Your task to perform on an android device: Check the weather Image 0: 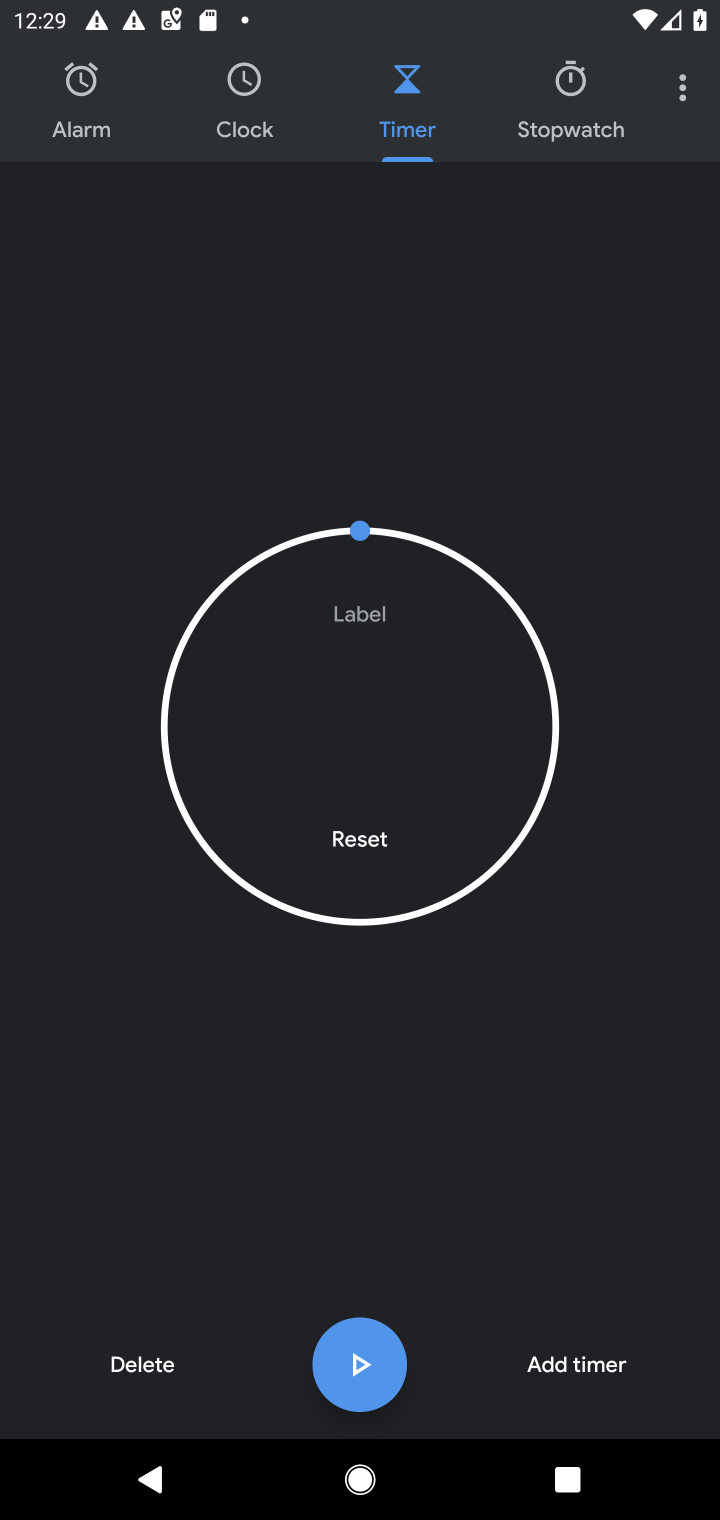
Step 0: press home button
Your task to perform on an android device: Check the weather Image 1: 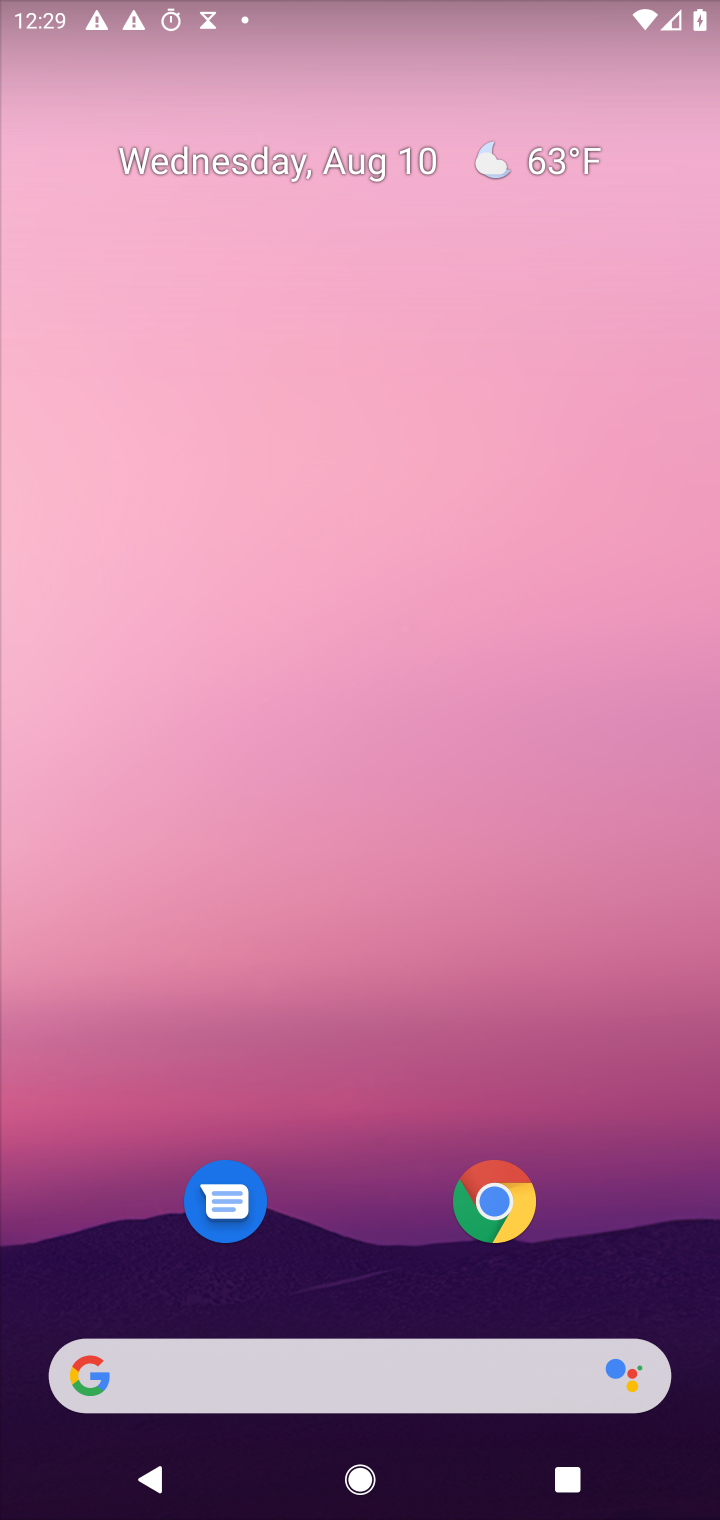
Step 1: drag from (356, 1055) to (423, 527)
Your task to perform on an android device: Check the weather Image 2: 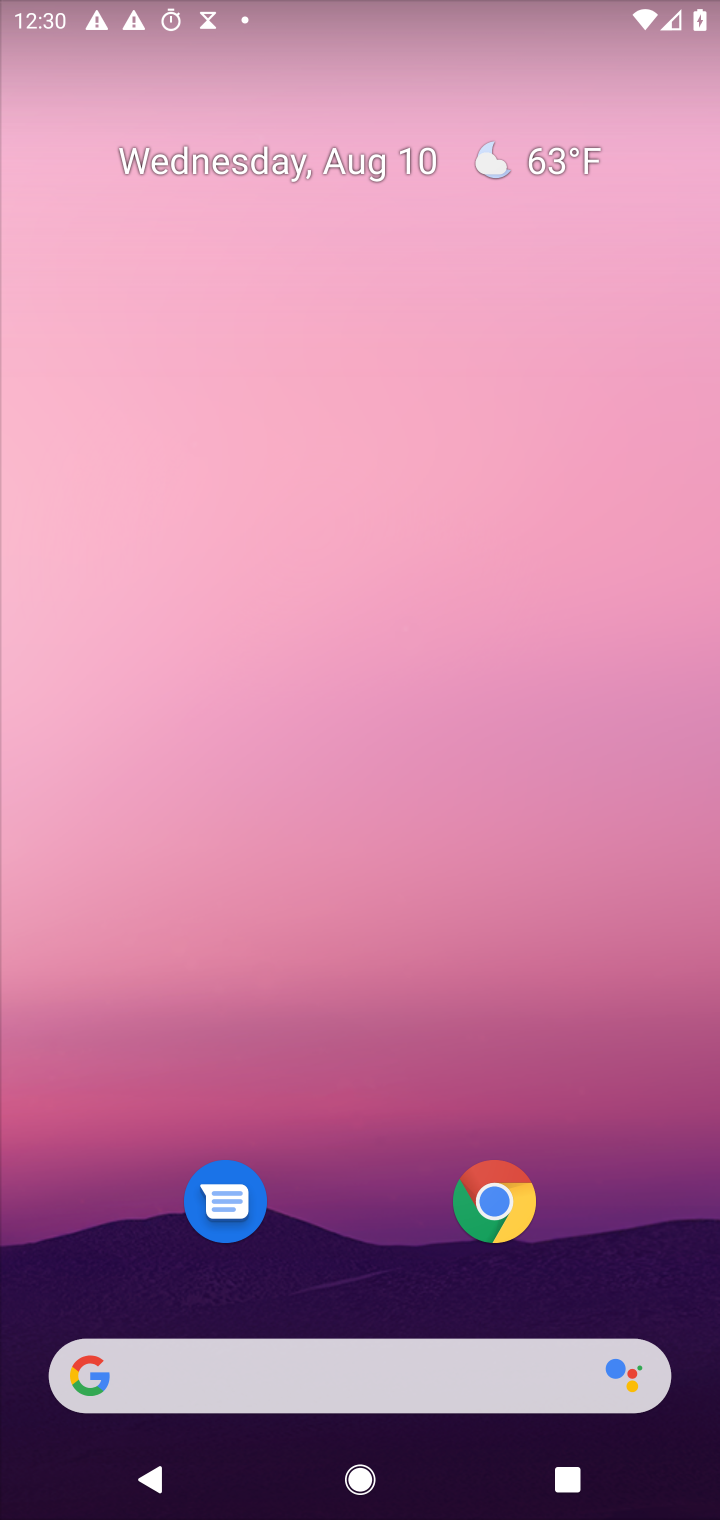
Step 2: click (565, 602)
Your task to perform on an android device: Check the weather Image 3: 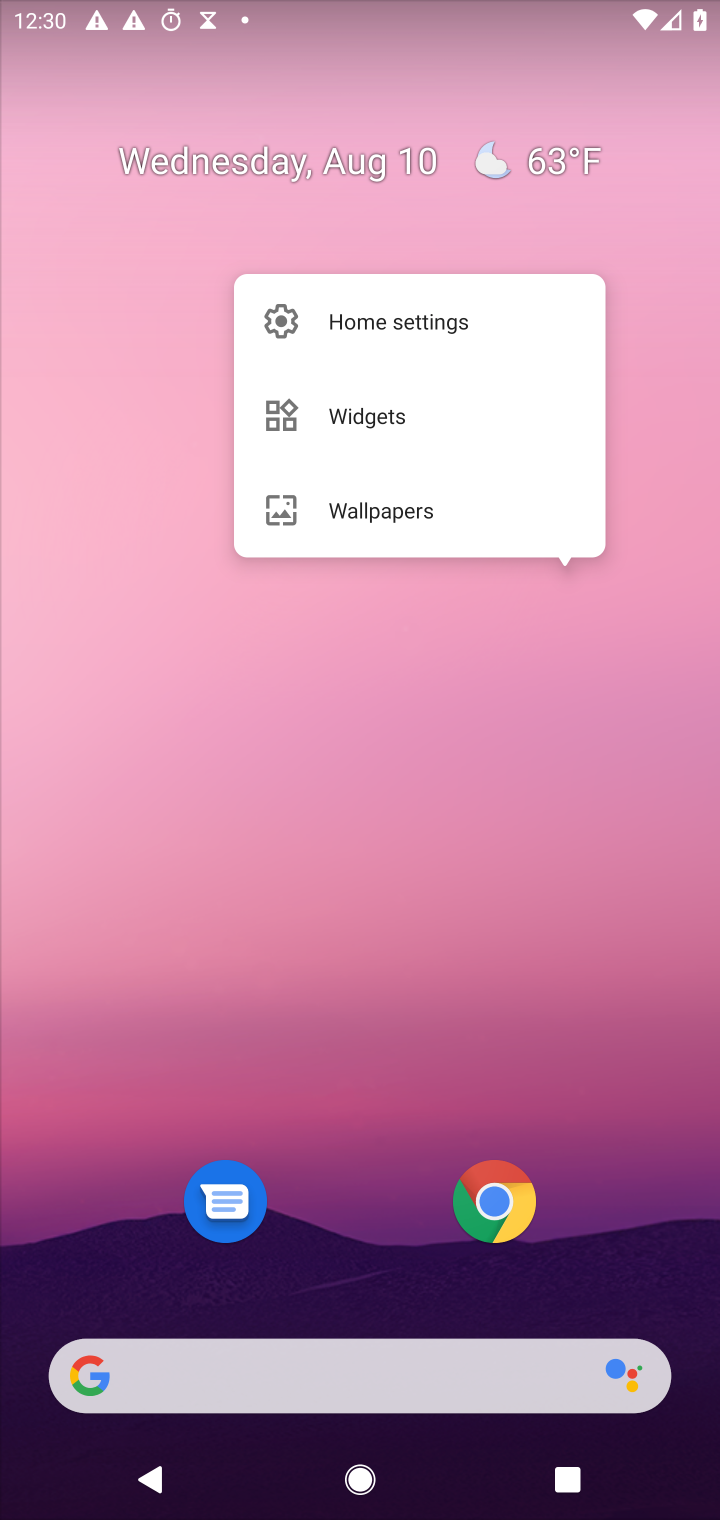
Step 3: drag from (329, 1120) to (274, 276)
Your task to perform on an android device: Check the weather Image 4: 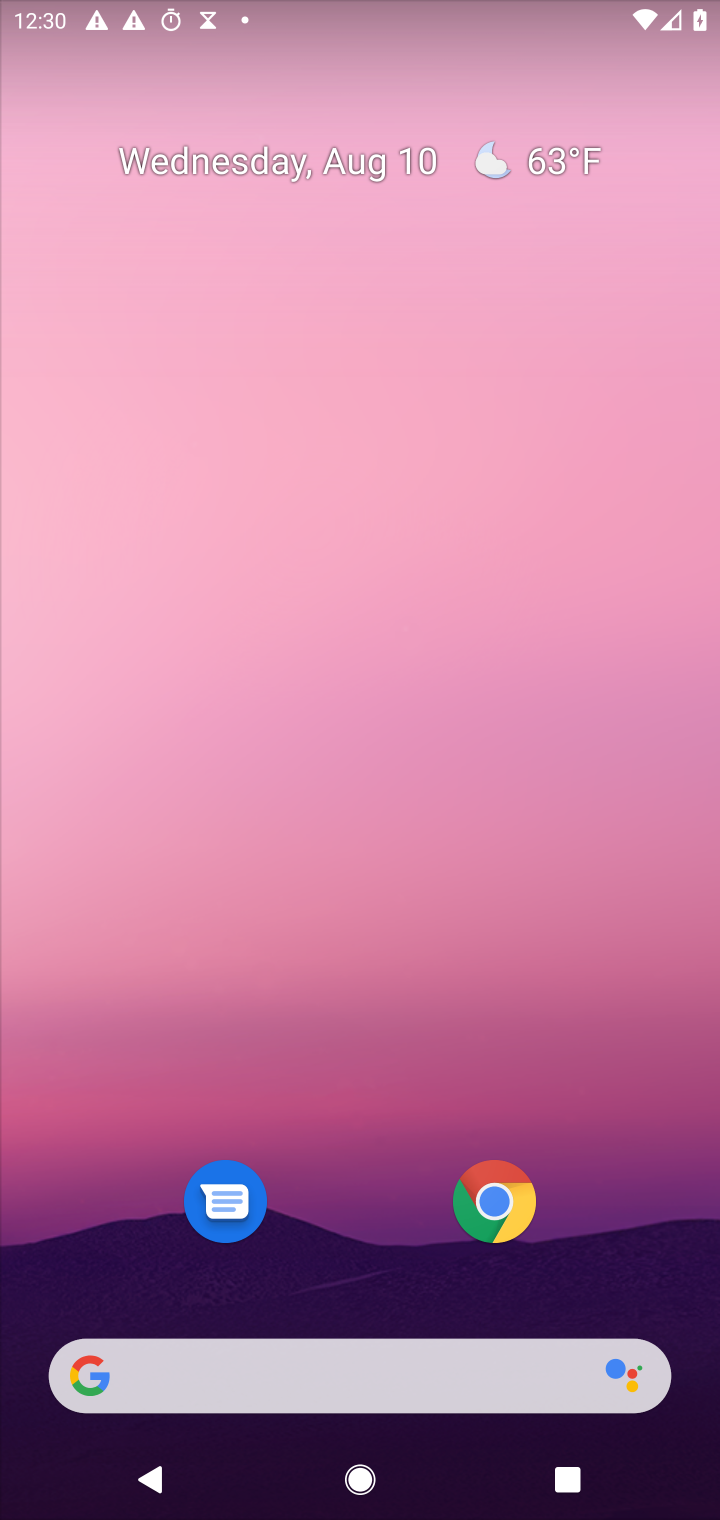
Step 4: drag from (334, 1113) to (447, 11)
Your task to perform on an android device: Check the weather Image 5: 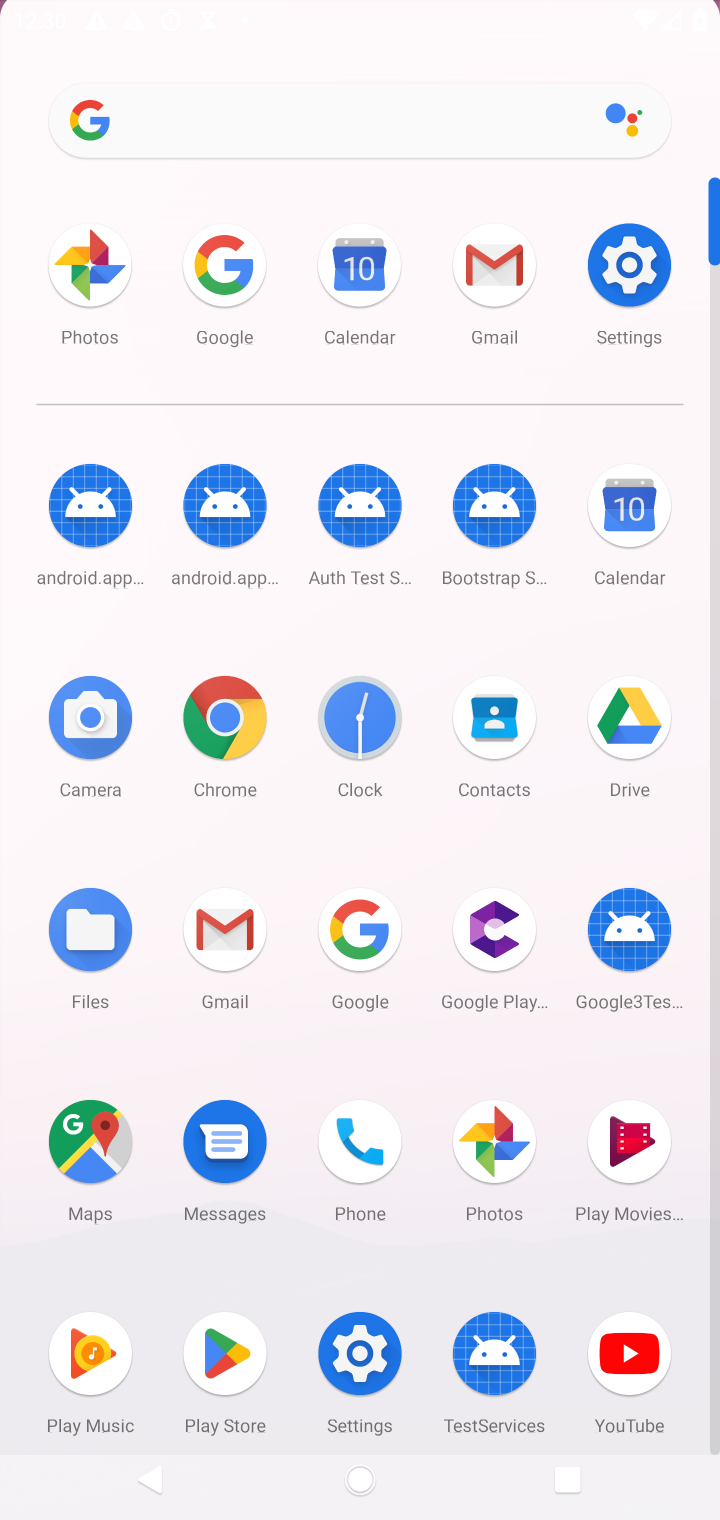
Step 5: click (213, 441)
Your task to perform on an android device: Check the weather Image 6: 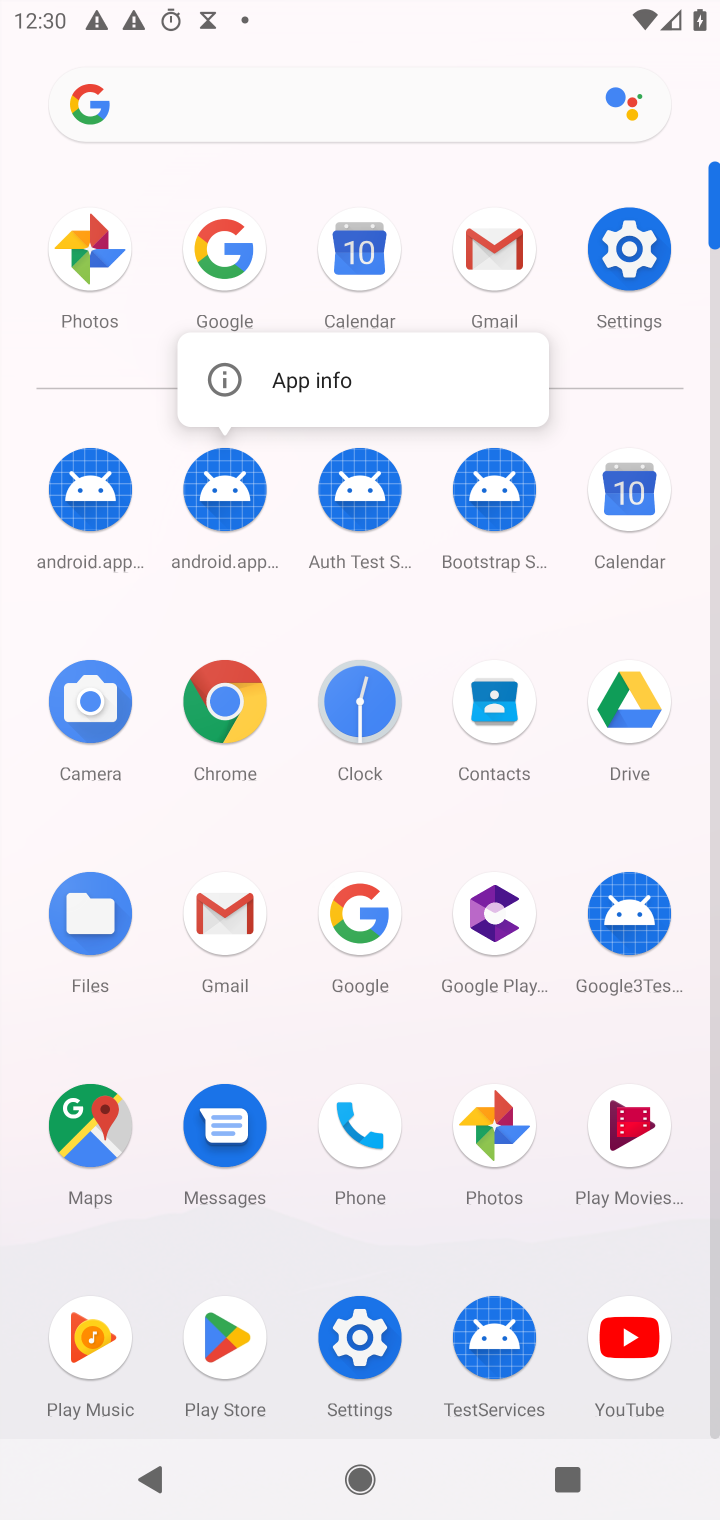
Step 6: click (201, 264)
Your task to perform on an android device: Check the weather Image 7: 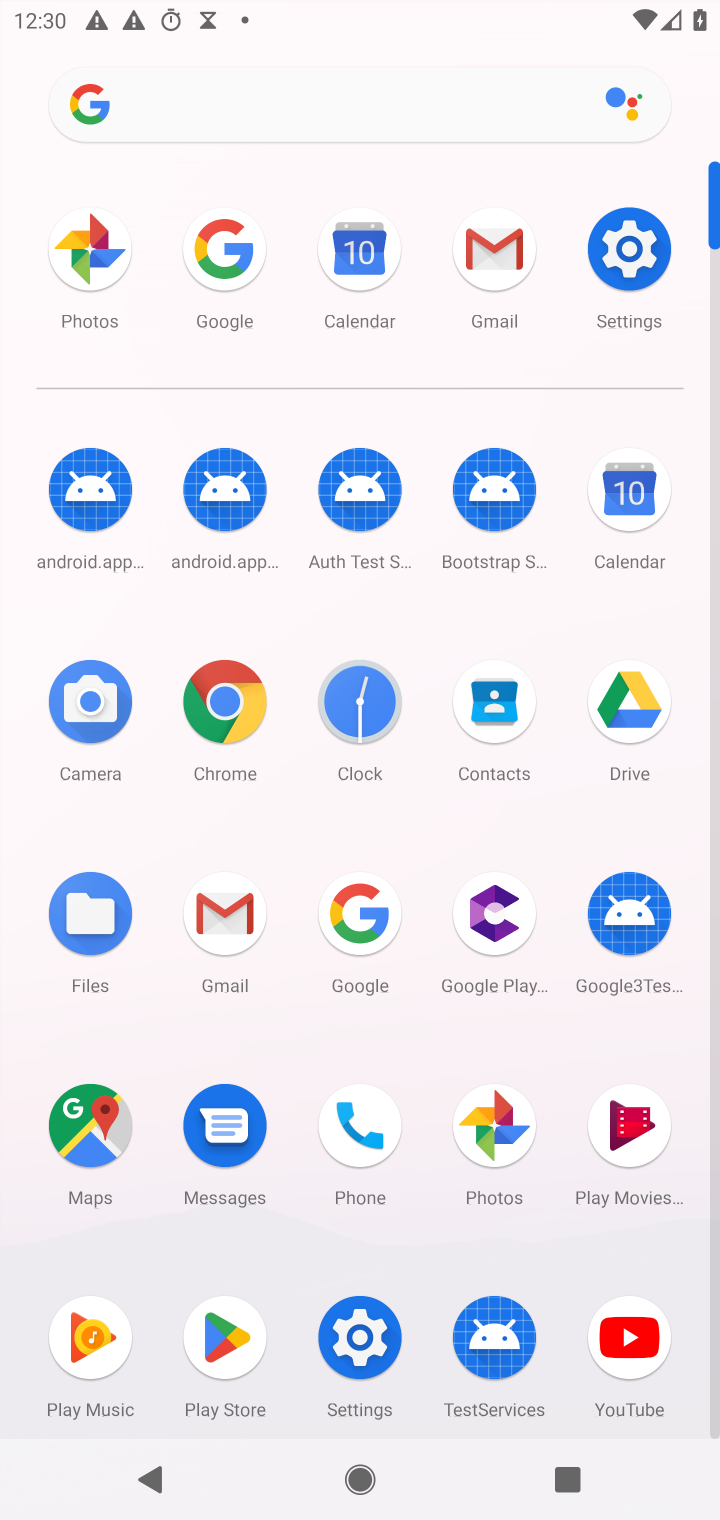
Step 7: click (204, 264)
Your task to perform on an android device: Check the weather Image 8: 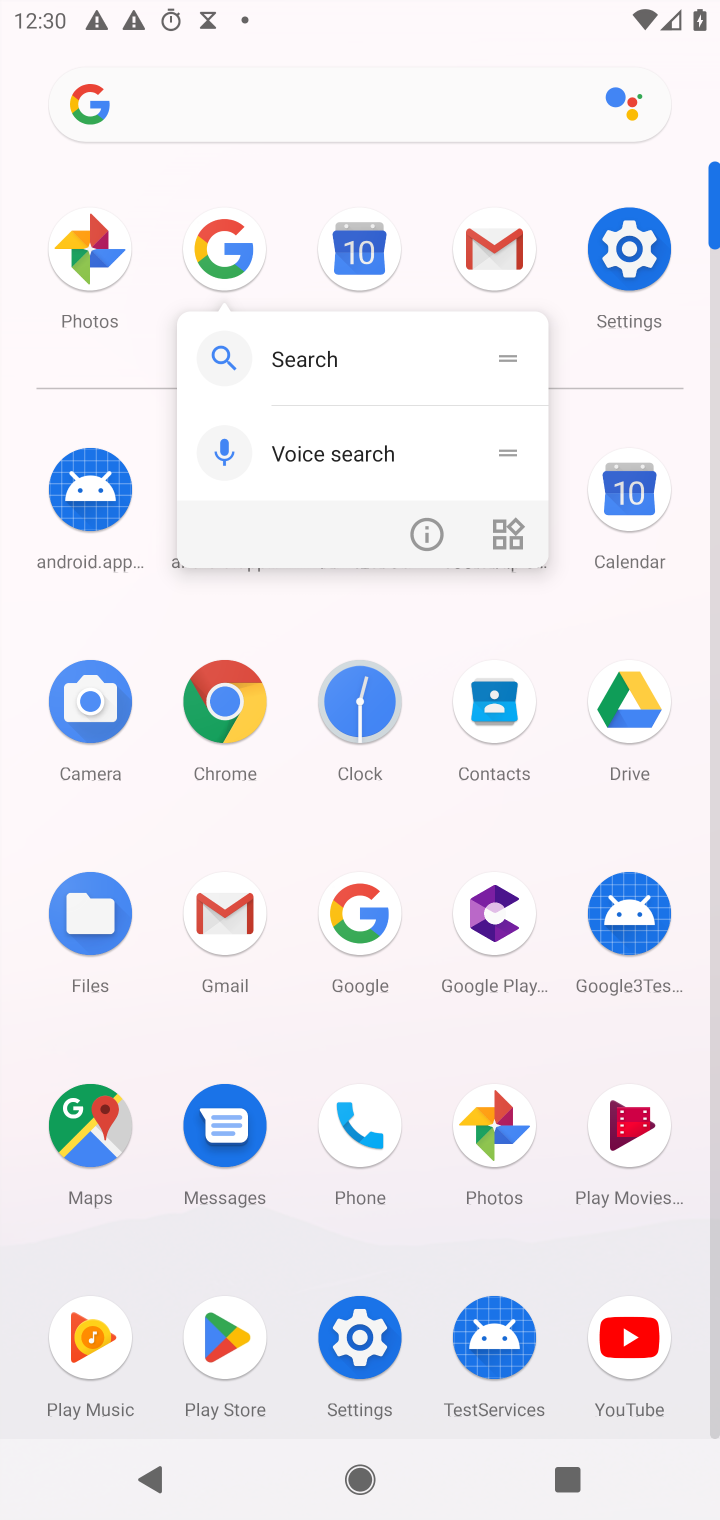
Step 8: click (207, 252)
Your task to perform on an android device: Check the weather Image 9: 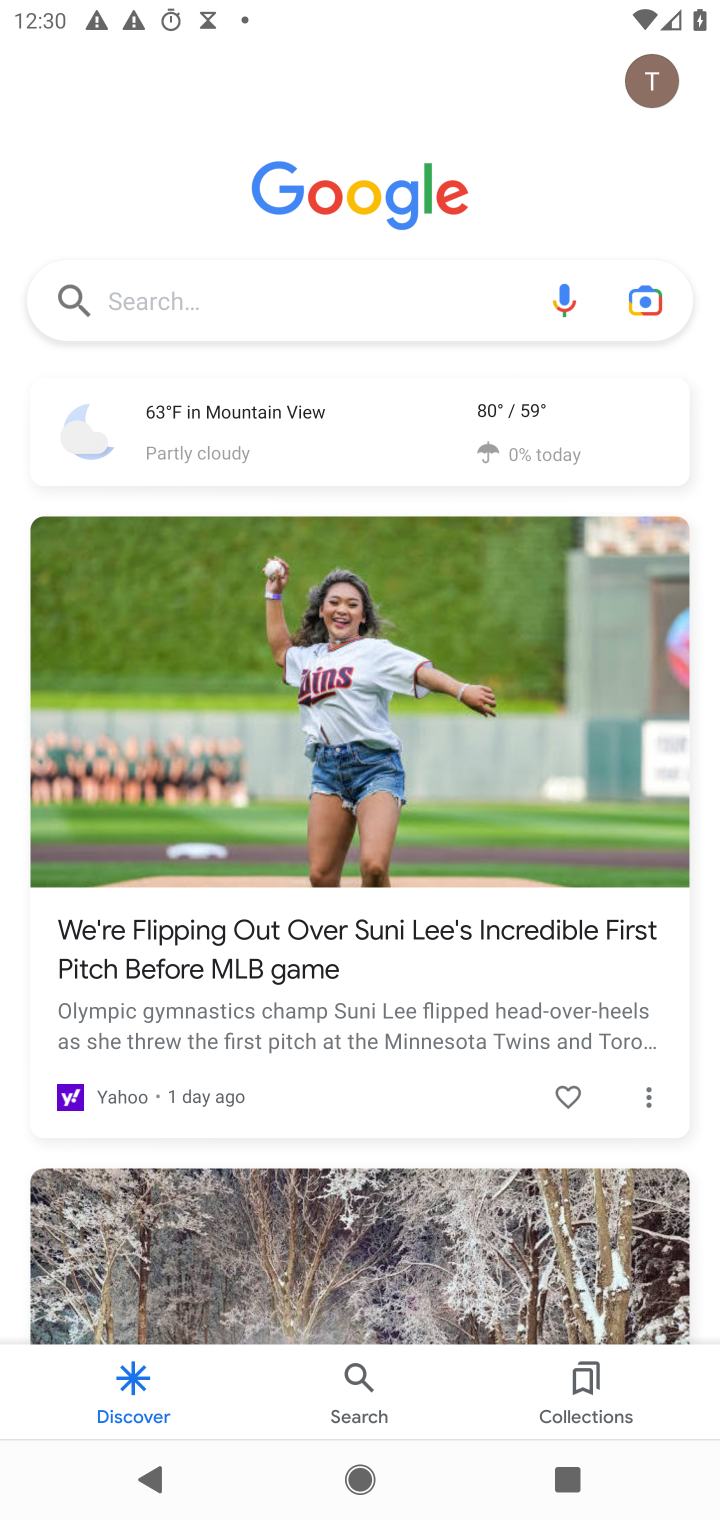
Step 9: click (206, 283)
Your task to perform on an android device: Check the weather Image 10: 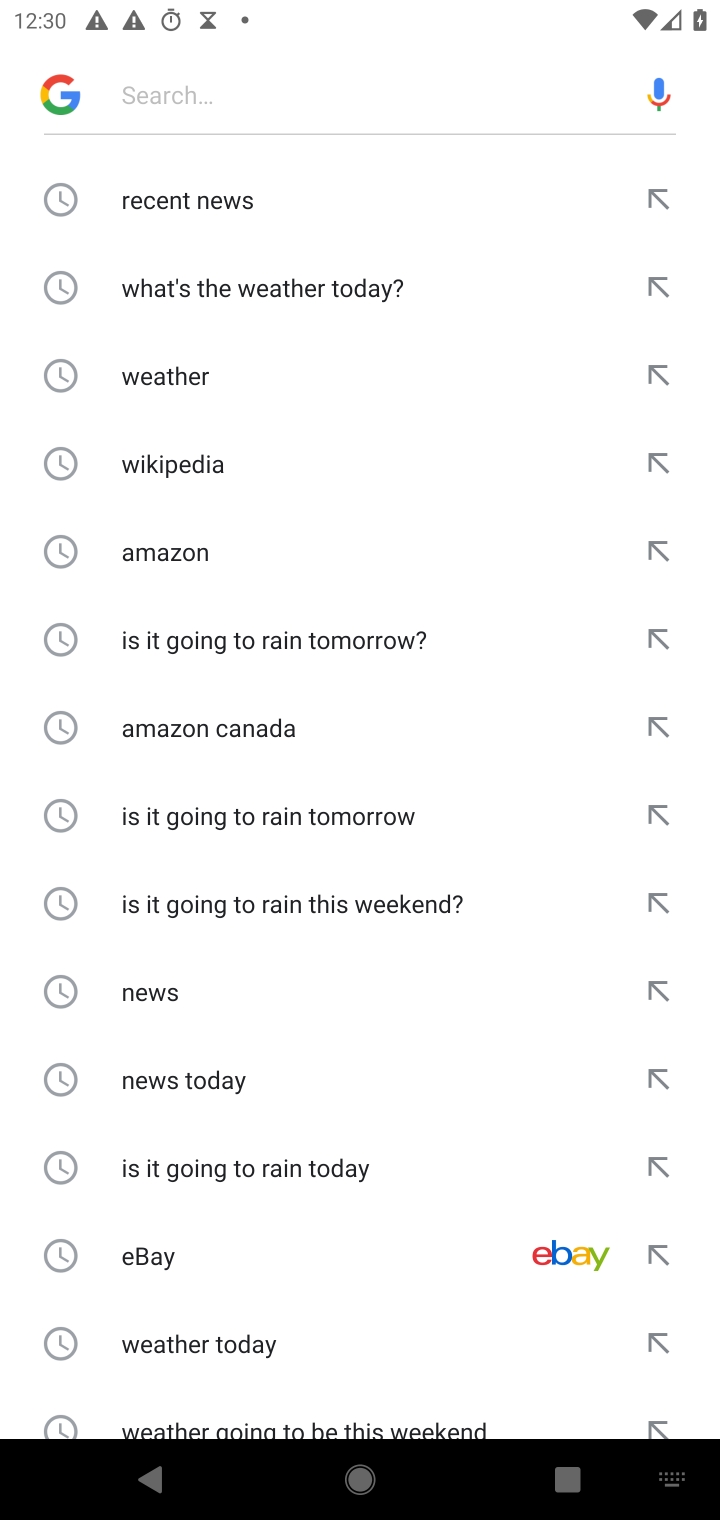
Step 10: type "weather"
Your task to perform on an android device: Check the weather Image 11: 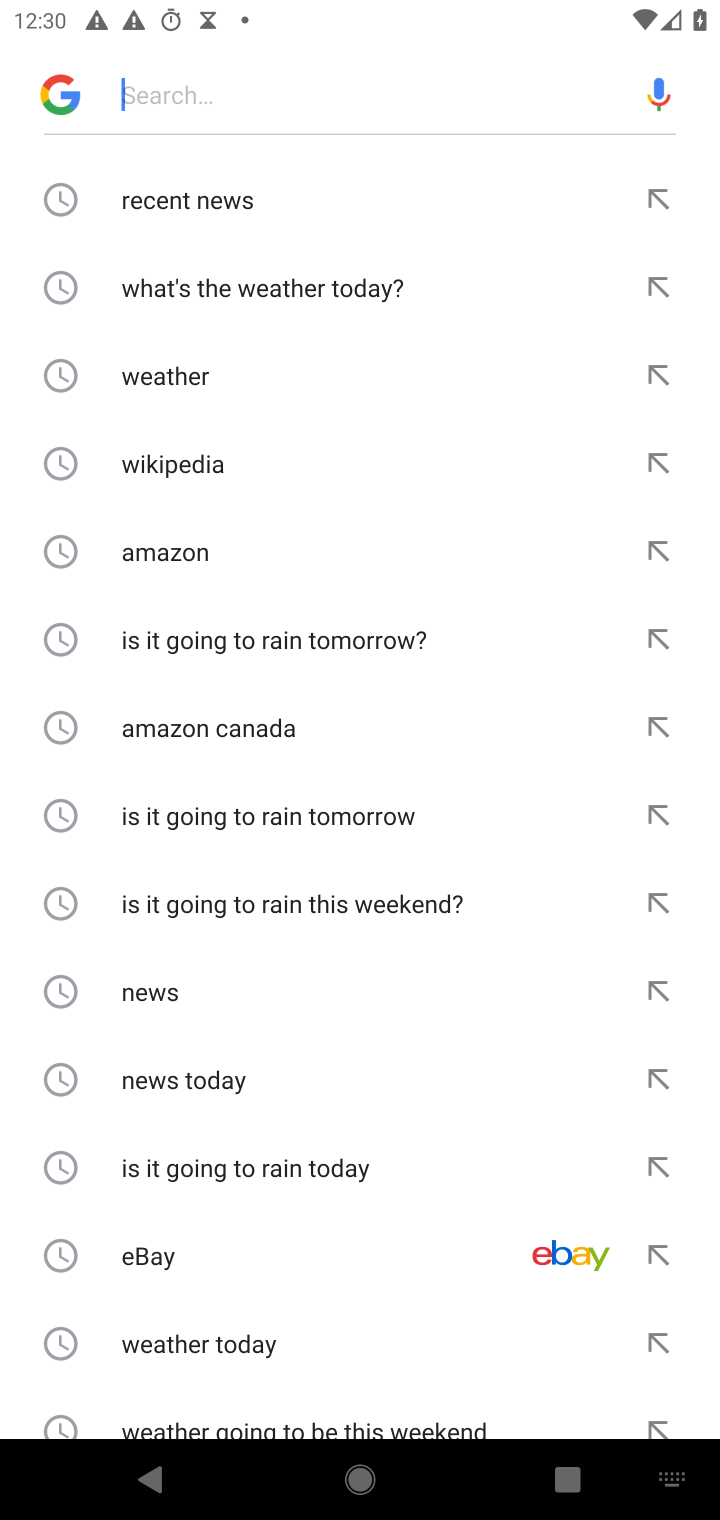
Step 11: click (188, 96)
Your task to perform on an android device: Check the weather Image 12: 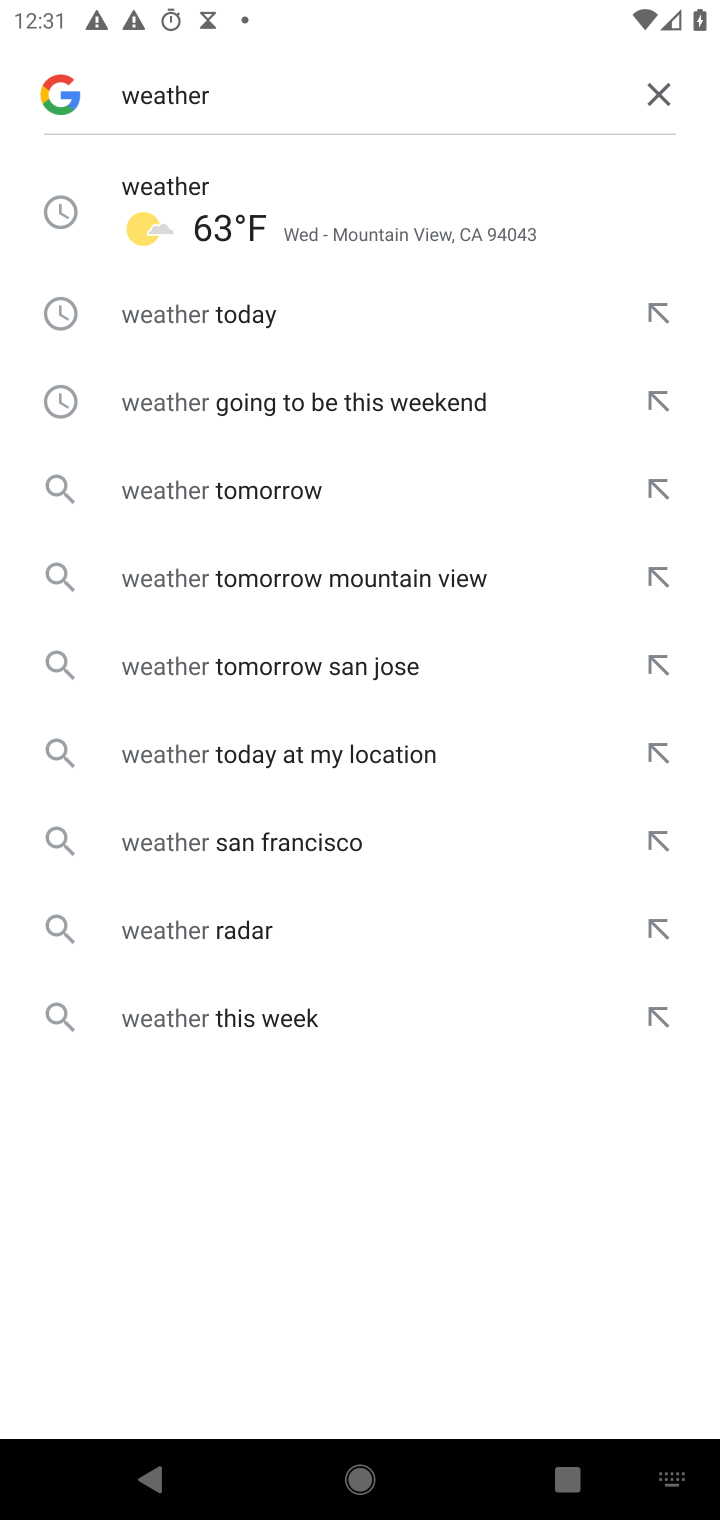
Step 12: press enter
Your task to perform on an android device: Check the weather Image 13: 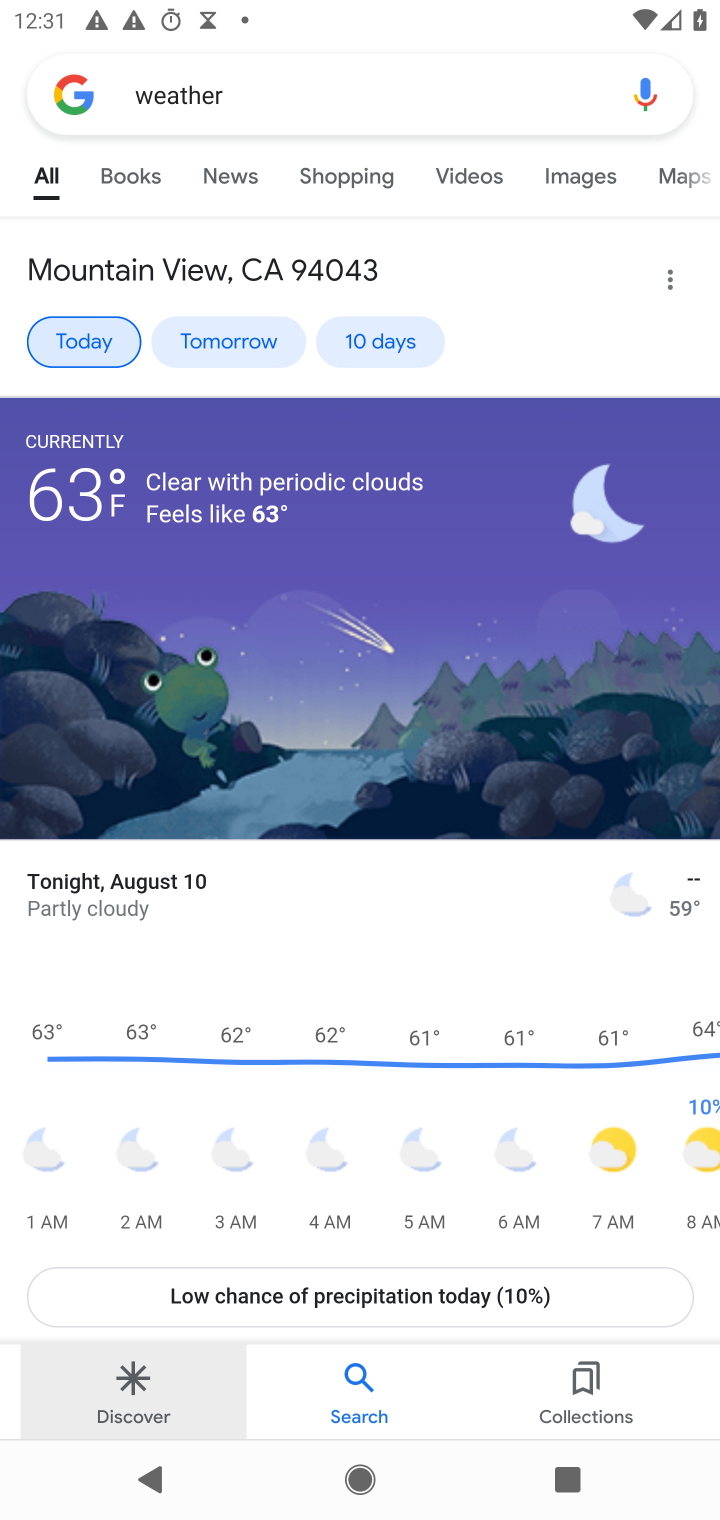
Step 13: task complete